Your task to perform on an android device: open chrome privacy settings Image 0: 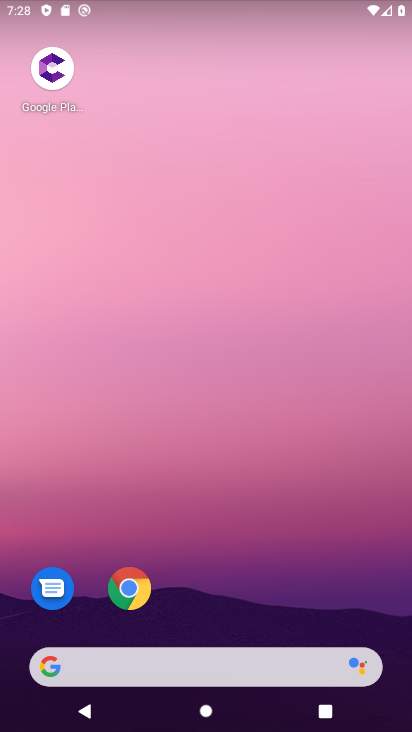
Step 0: click (111, 593)
Your task to perform on an android device: open chrome privacy settings Image 1: 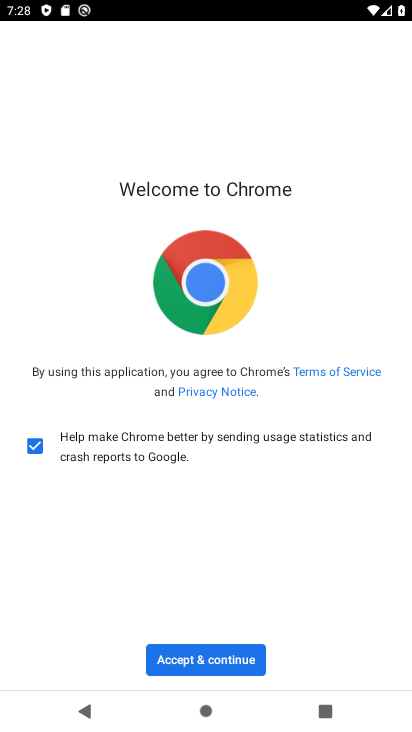
Step 1: click (198, 649)
Your task to perform on an android device: open chrome privacy settings Image 2: 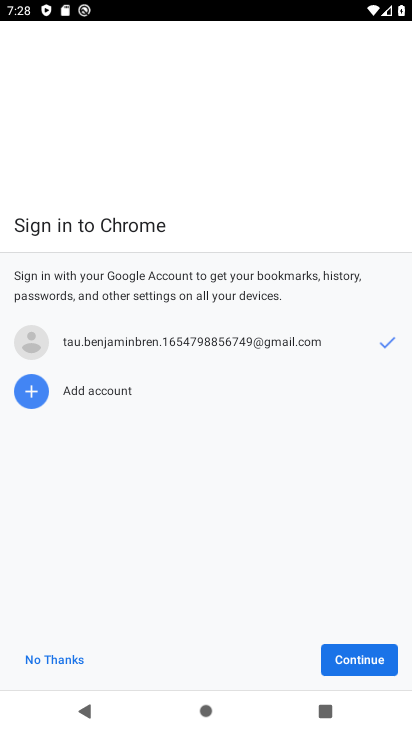
Step 2: click (368, 668)
Your task to perform on an android device: open chrome privacy settings Image 3: 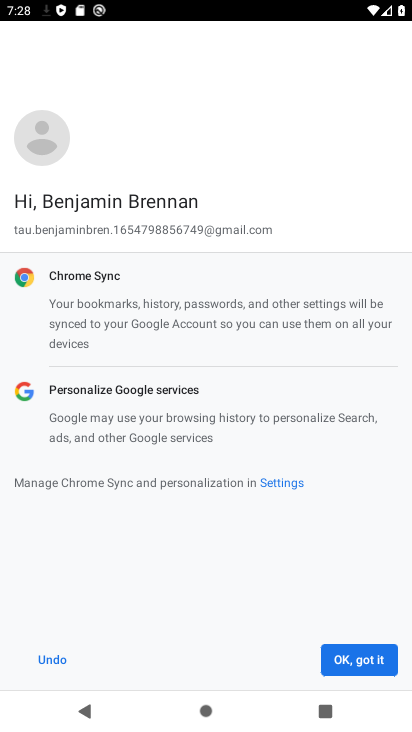
Step 3: click (383, 655)
Your task to perform on an android device: open chrome privacy settings Image 4: 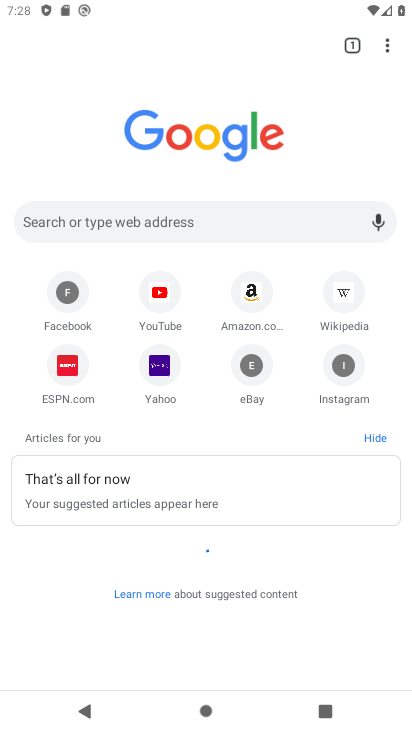
Step 4: click (382, 46)
Your task to perform on an android device: open chrome privacy settings Image 5: 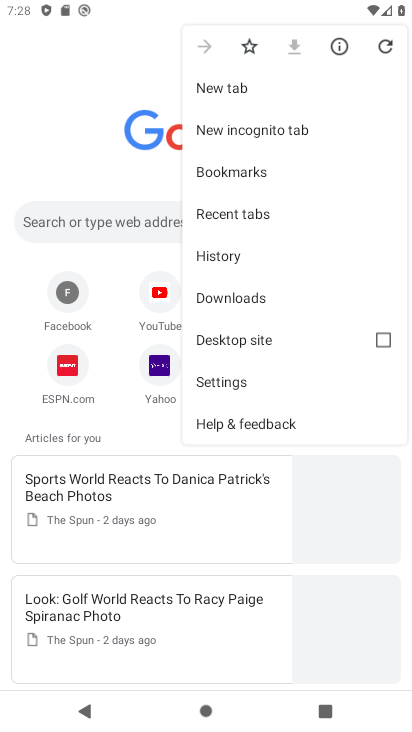
Step 5: click (250, 379)
Your task to perform on an android device: open chrome privacy settings Image 6: 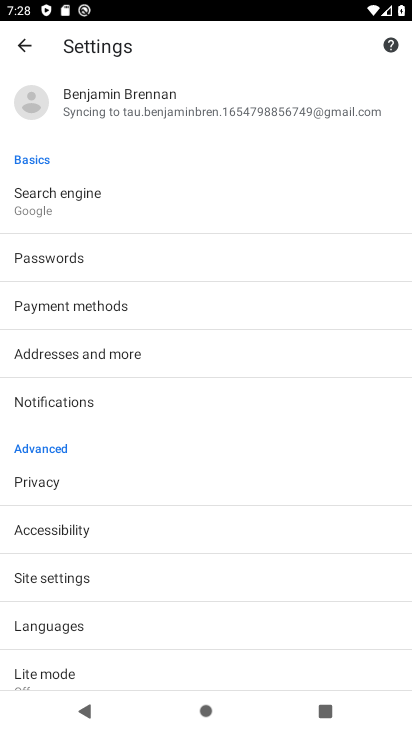
Step 6: click (41, 484)
Your task to perform on an android device: open chrome privacy settings Image 7: 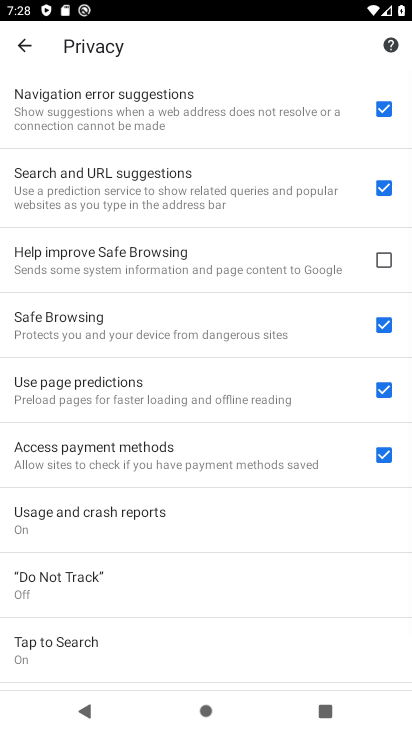
Step 7: task complete